Your task to perform on an android device: What's on my calendar tomorrow? Image 0: 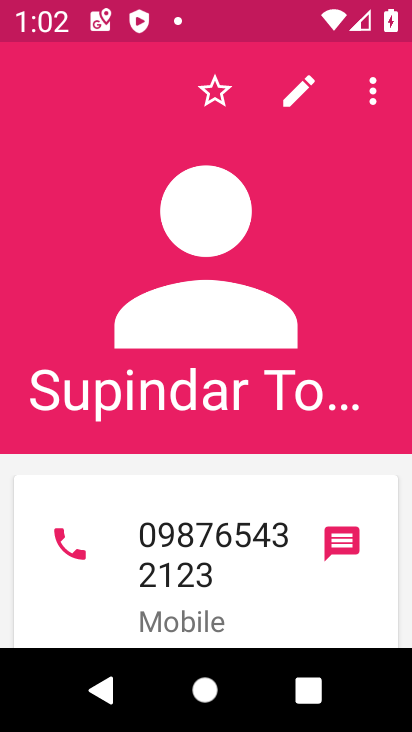
Step 0: press back button
Your task to perform on an android device: What's on my calendar tomorrow? Image 1: 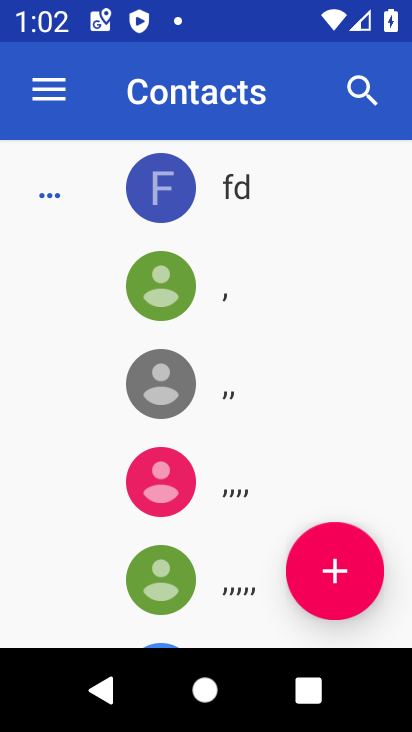
Step 1: press back button
Your task to perform on an android device: What's on my calendar tomorrow? Image 2: 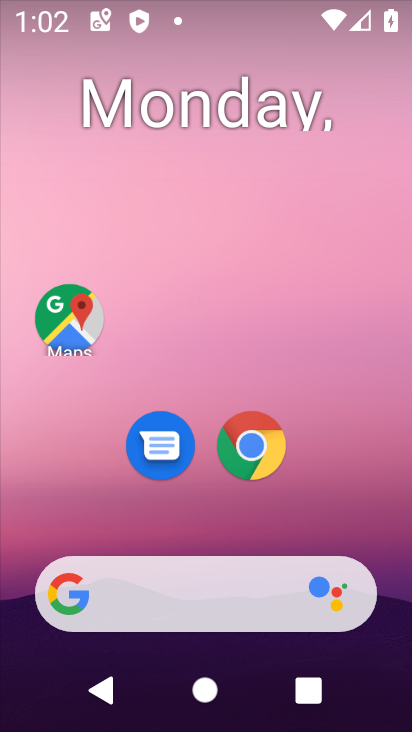
Step 2: drag from (293, 505) to (277, 9)
Your task to perform on an android device: What's on my calendar tomorrow? Image 3: 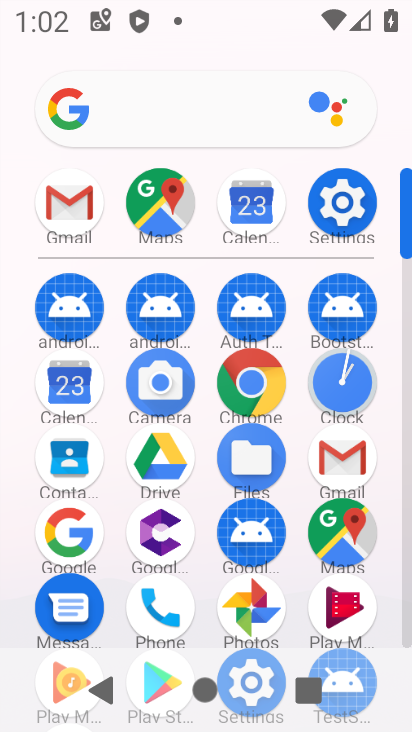
Step 3: click (72, 386)
Your task to perform on an android device: What's on my calendar tomorrow? Image 4: 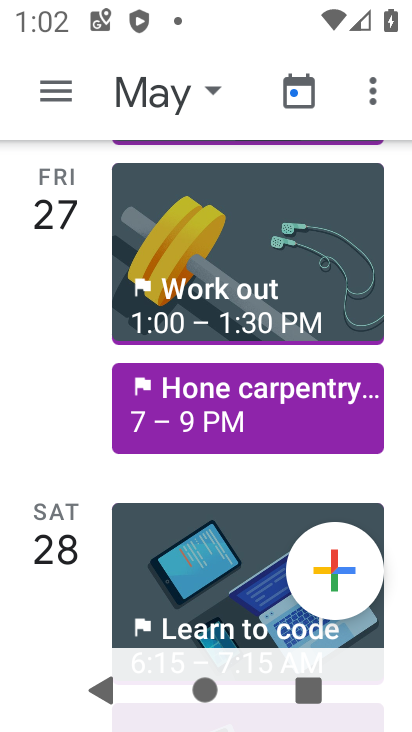
Step 4: click (301, 94)
Your task to perform on an android device: What's on my calendar tomorrow? Image 5: 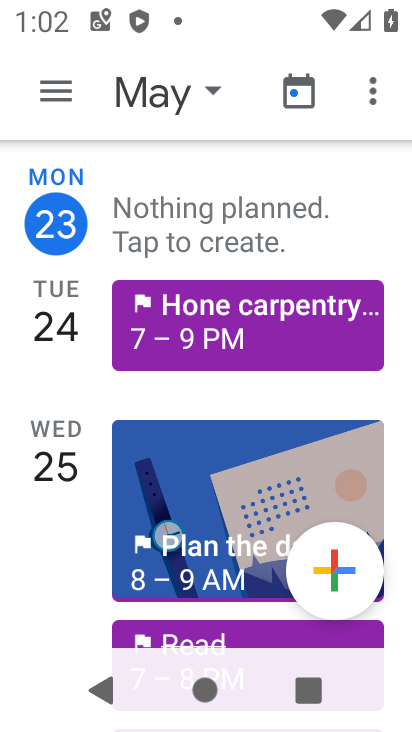
Step 5: click (206, 93)
Your task to perform on an android device: What's on my calendar tomorrow? Image 6: 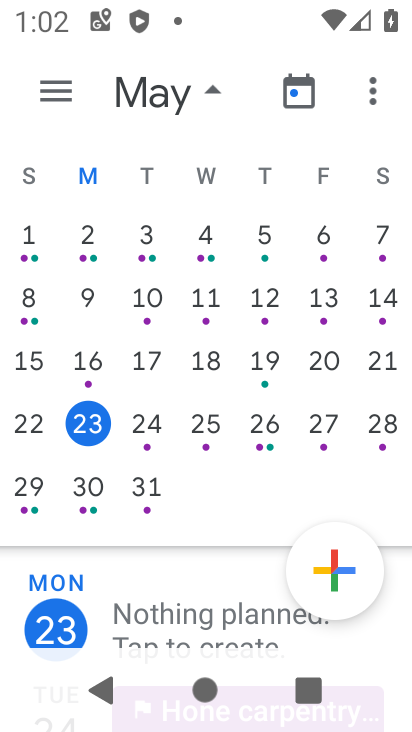
Step 6: click (151, 426)
Your task to perform on an android device: What's on my calendar tomorrow? Image 7: 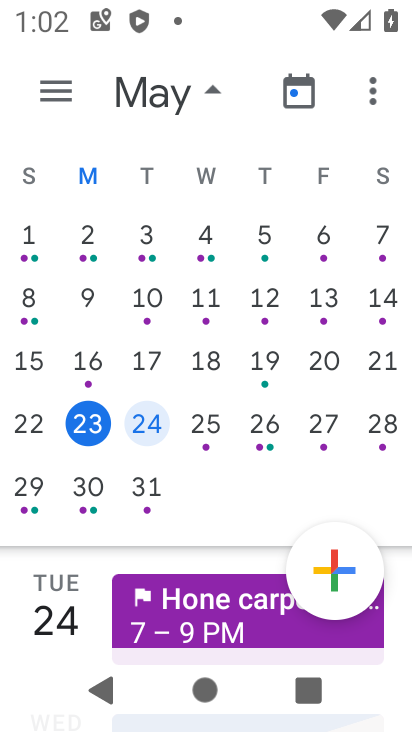
Step 7: drag from (159, 530) to (230, 413)
Your task to perform on an android device: What's on my calendar tomorrow? Image 8: 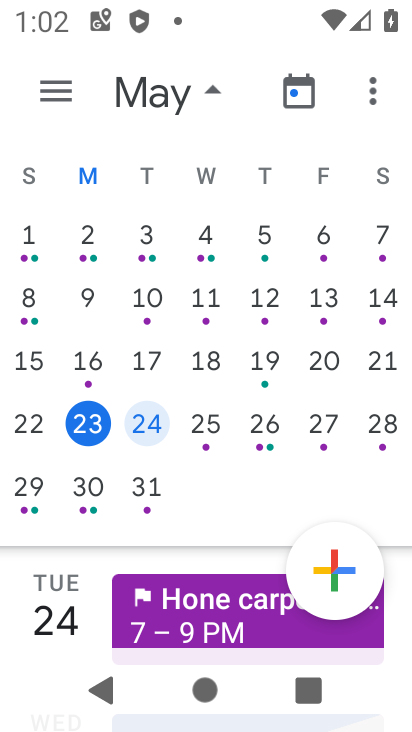
Step 8: click (193, 588)
Your task to perform on an android device: What's on my calendar tomorrow? Image 9: 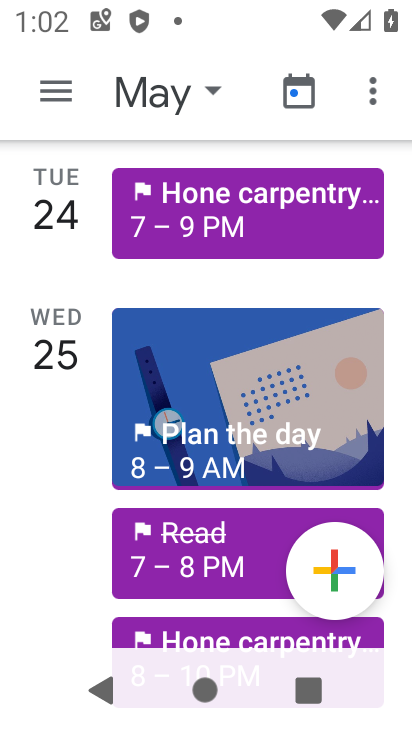
Step 9: click (241, 215)
Your task to perform on an android device: What's on my calendar tomorrow? Image 10: 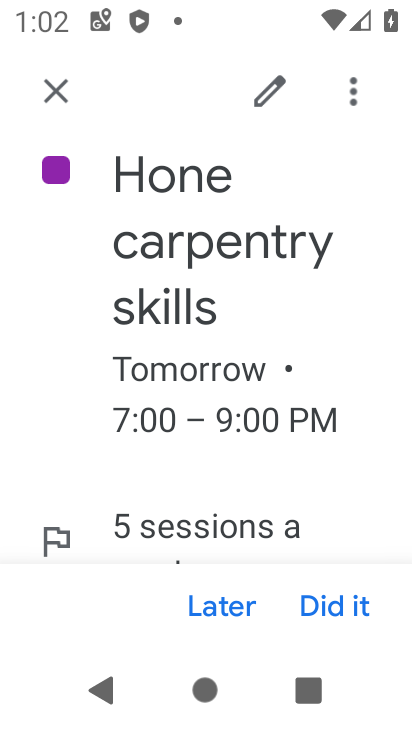
Step 10: task complete